Your task to perform on an android device: Open Youtube and go to the subscriptions tab Image 0: 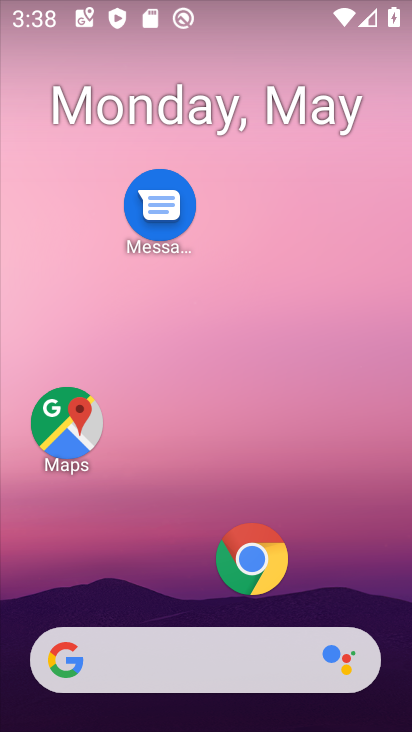
Step 0: drag from (144, 568) to (192, 173)
Your task to perform on an android device: Open Youtube and go to the subscriptions tab Image 1: 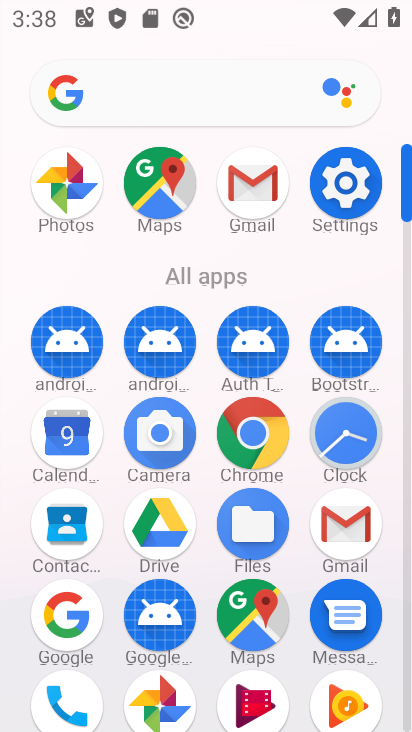
Step 1: drag from (208, 640) to (221, 259)
Your task to perform on an android device: Open Youtube and go to the subscriptions tab Image 2: 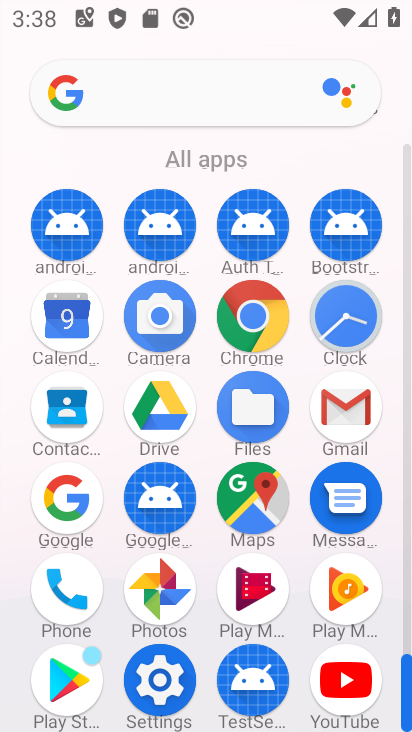
Step 2: click (347, 672)
Your task to perform on an android device: Open Youtube and go to the subscriptions tab Image 3: 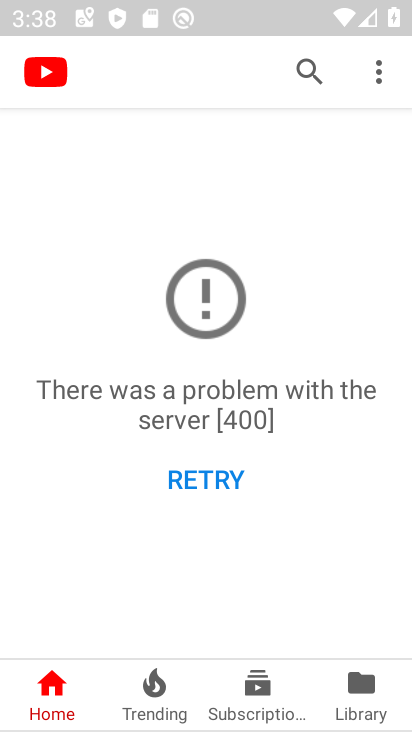
Step 3: task complete